Your task to perform on an android device: move an email to a new category in the gmail app Image 0: 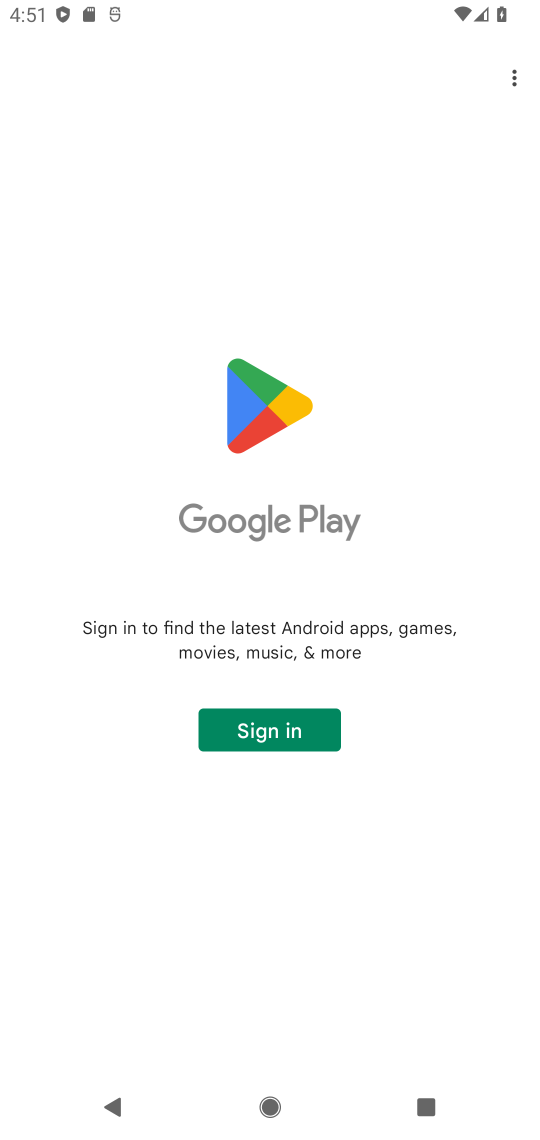
Step 0: press home button
Your task to perform on an android device: move an email to a new category in the gmail app Image 1: 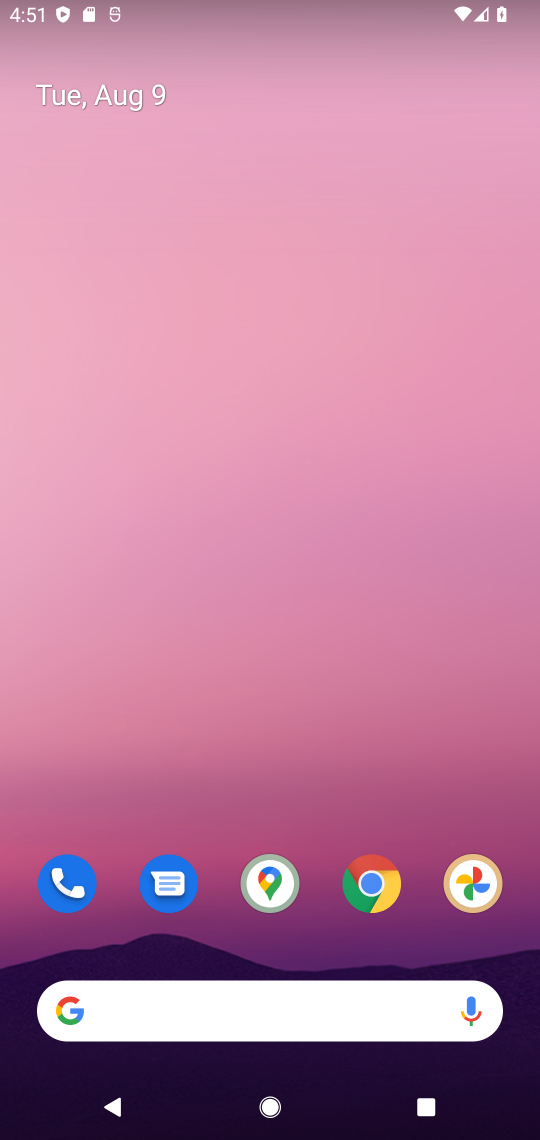
Step 1: drag from (246, 802) to (244, 110)
Your task to perform on an android device: move an email to a new category in the gmail app Image 2: 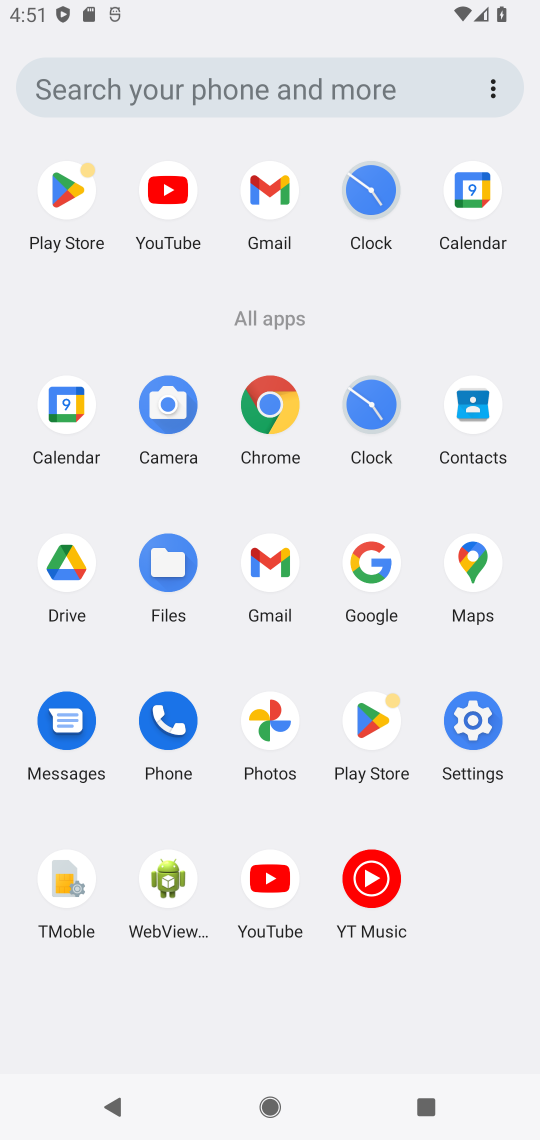
Step 2: click (255, 593)
Your task to perform on an android device: move an email to a new category in the gmail app Image 3: 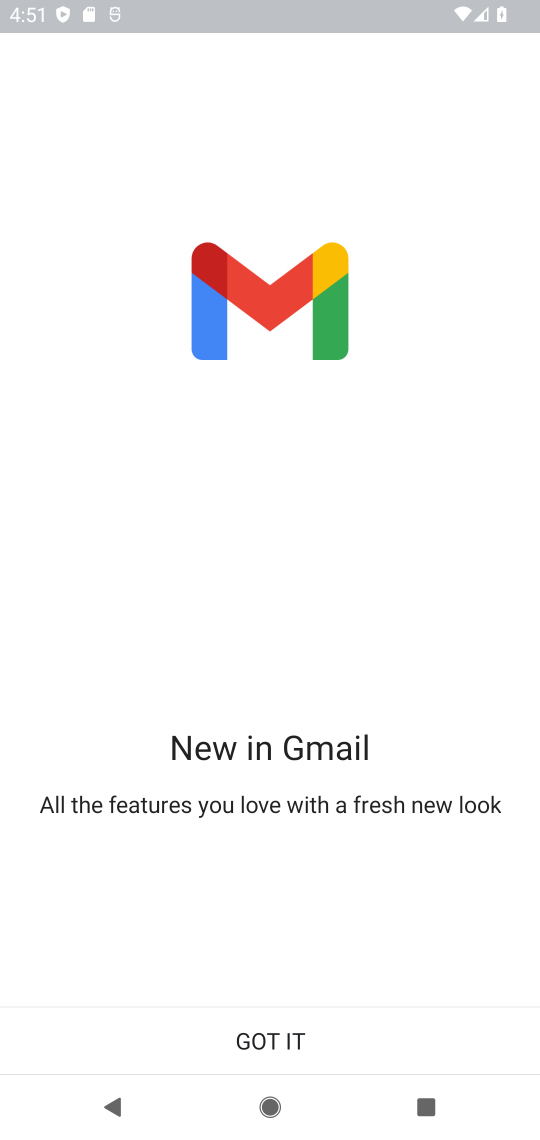
Step 3: click (257, 1004)
Your task to perform on an android device: move an email to a new category in the gmail app Image 4: 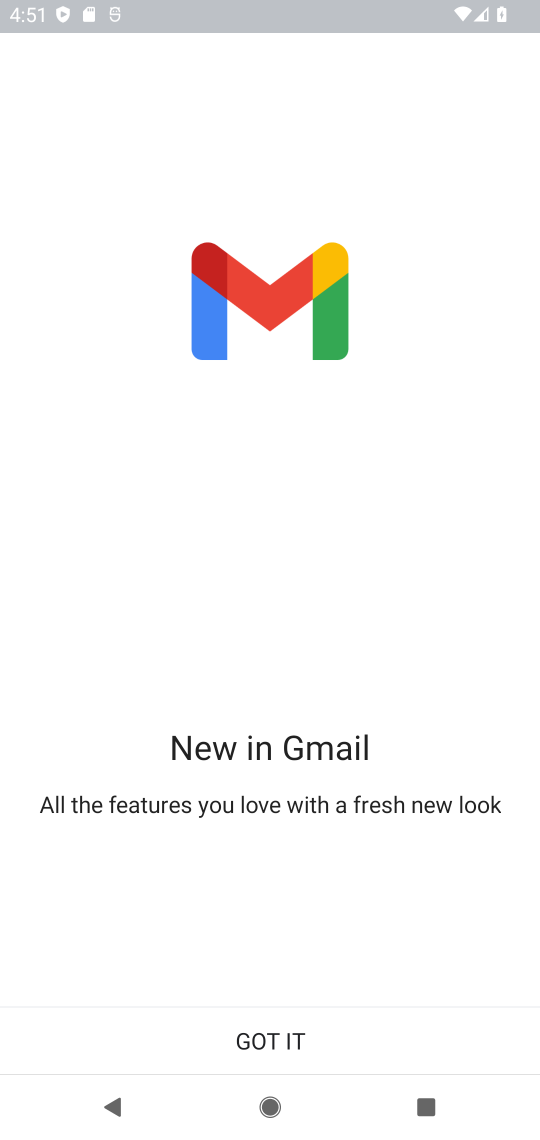
Step 4: click (264, 1025)
Your task to perform on an android device: move an email to a new category in the gmail app Image 5: 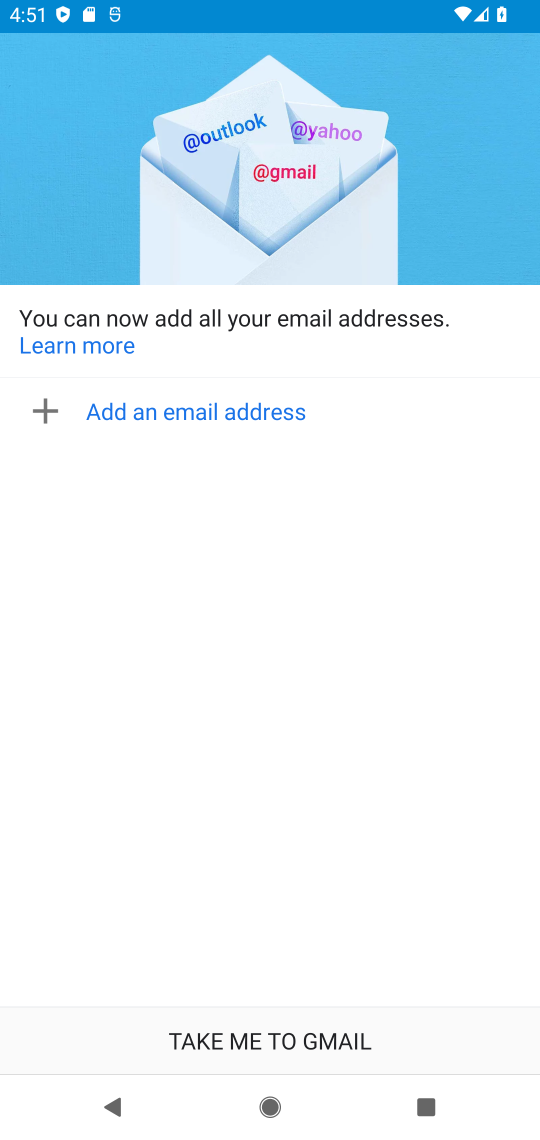
Step 5: click (275, 1024)
Your task to perform on an android device: move an email to a new category in the gmail app Image 6: 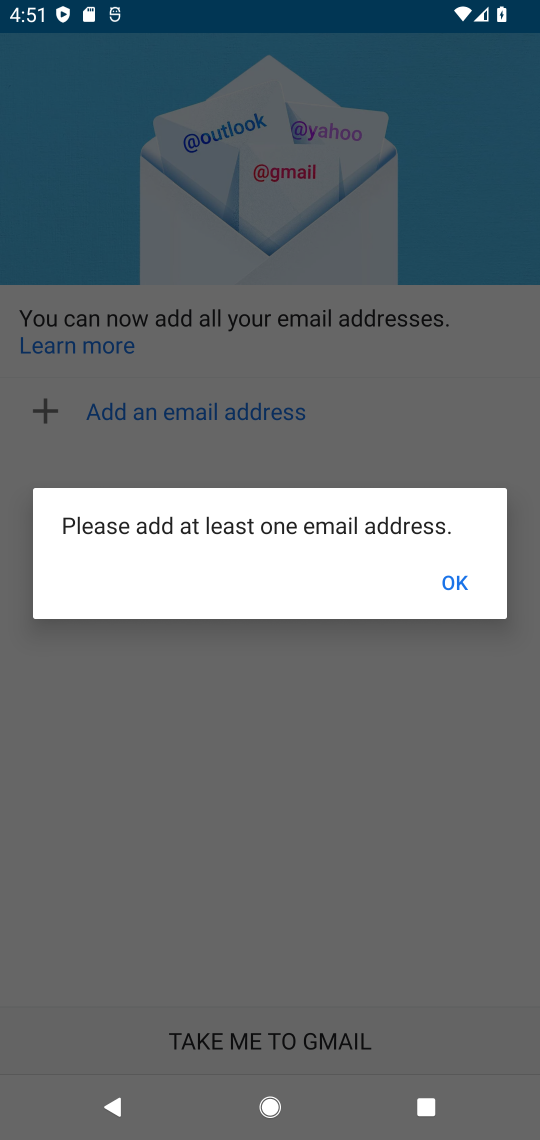
Step 6: click (452, 577)
Your task to perform on an android device: move an email to a new category in the gmail app Image 7: 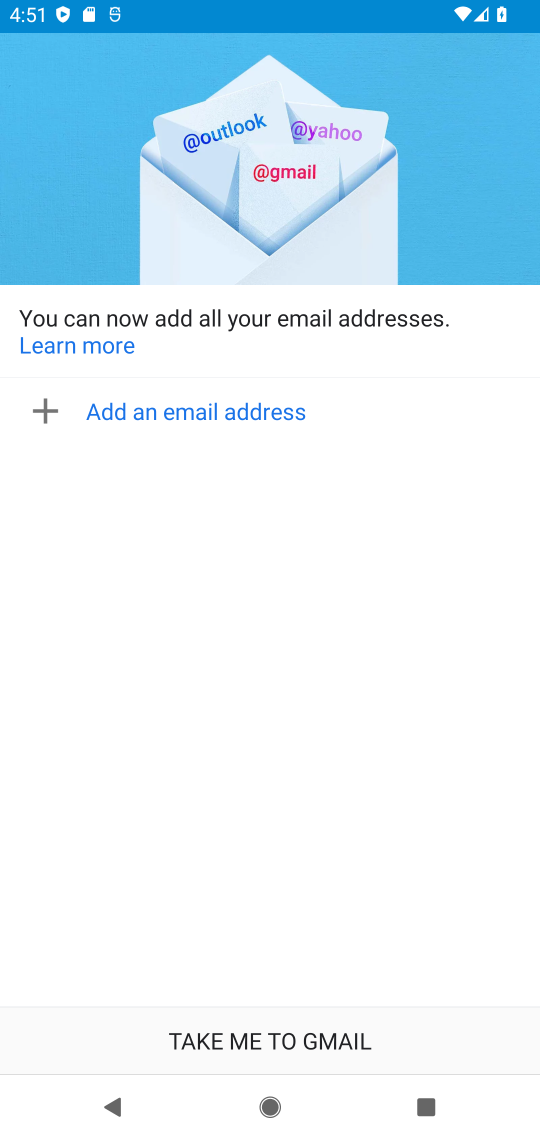
Step 7: click (279, 1034)
Your task to perform on an android device: move an email to a new category in the gmail app Image 8: 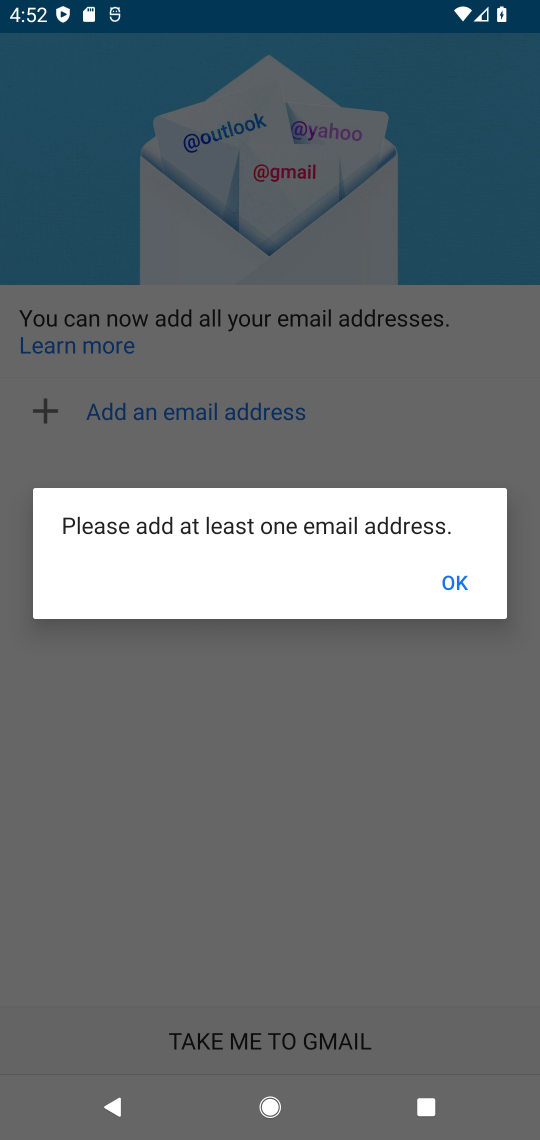
Step 8: click (440, 585)
Your task to perform on an android device: move an email to a new category in the gmail app Image 9: 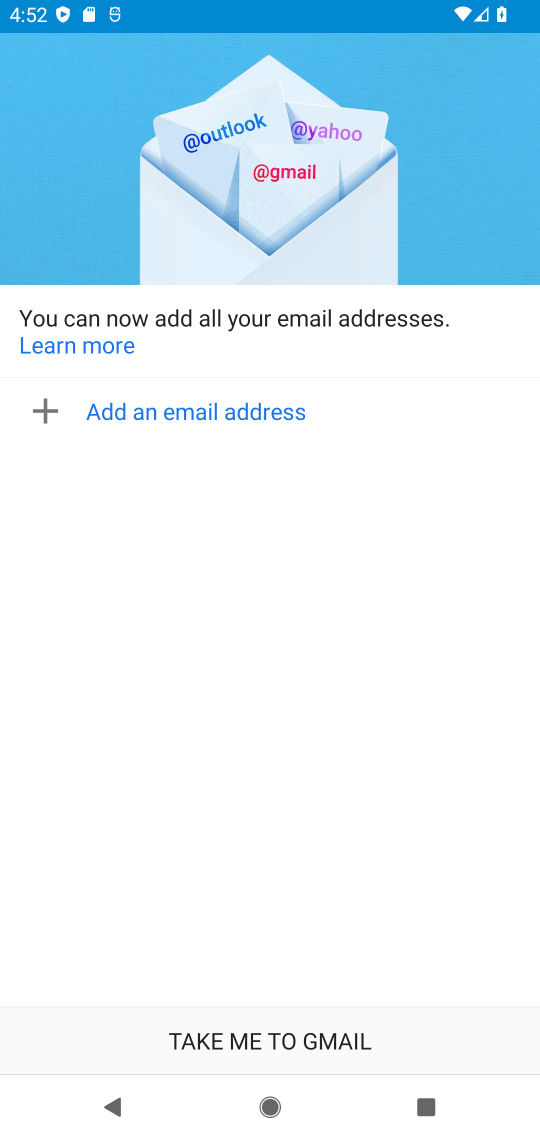
Step 9: click (262, 1048)
Your task to perform on an android device: move an email to a new category in the gmail app Image 10: 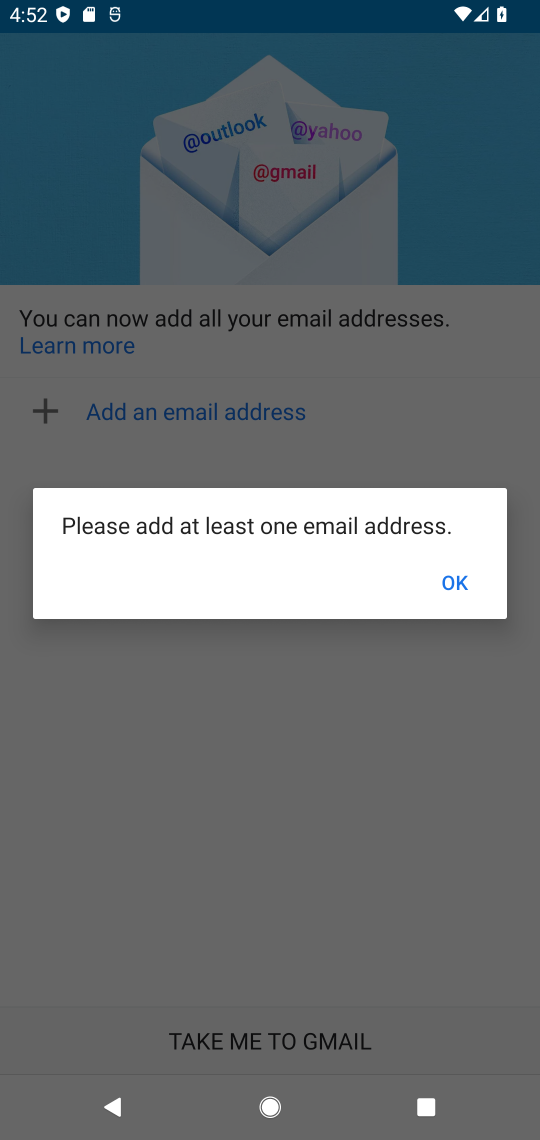
Step 10: click (466, 576)
Your task to perform on an android device: move an email to a new category in the gmail app Image 11: 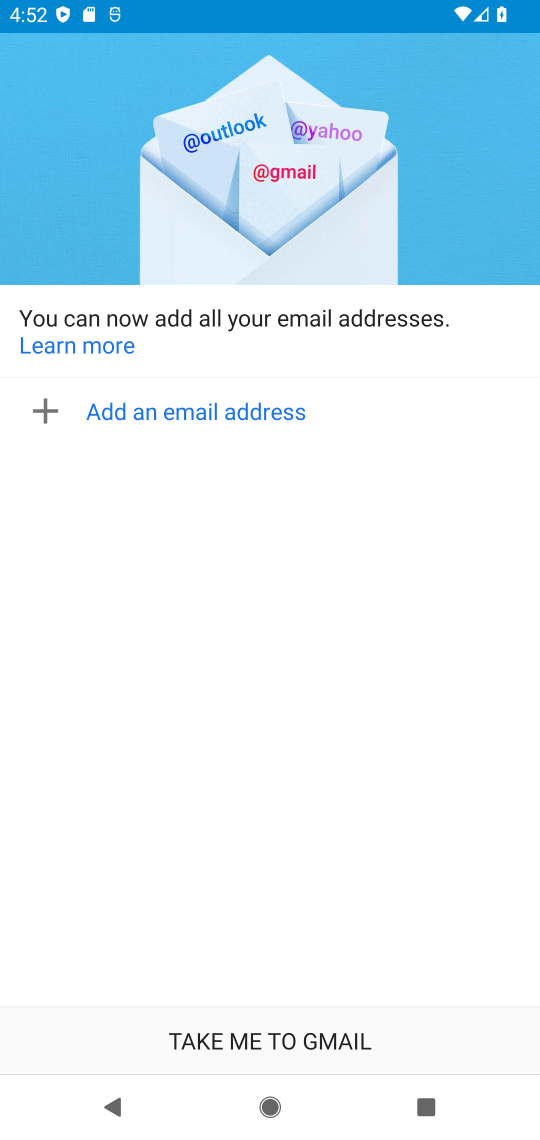
Step 11: task complete